Your task to perform on an android device: set the timer Image 0: 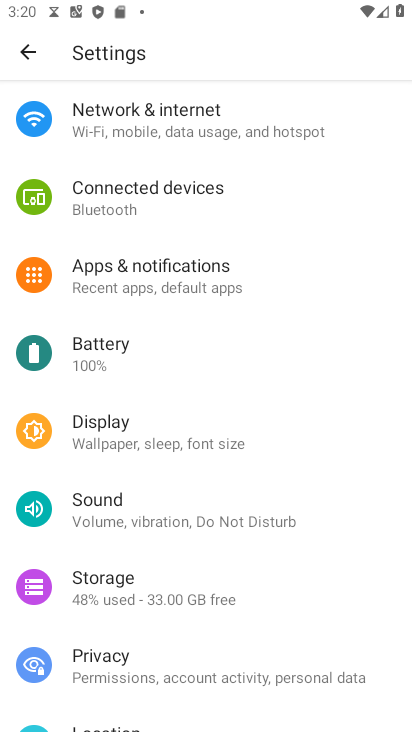
Step 0: drag from (160, 577) to (259, 269)
Your task to perform on an android device: set the timer Image 1: 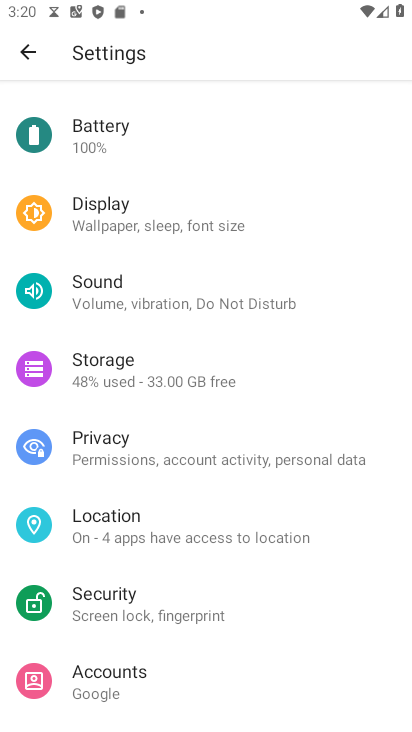
Step 1: press home button
Your task to perform on an android device: set the timer Image 2: 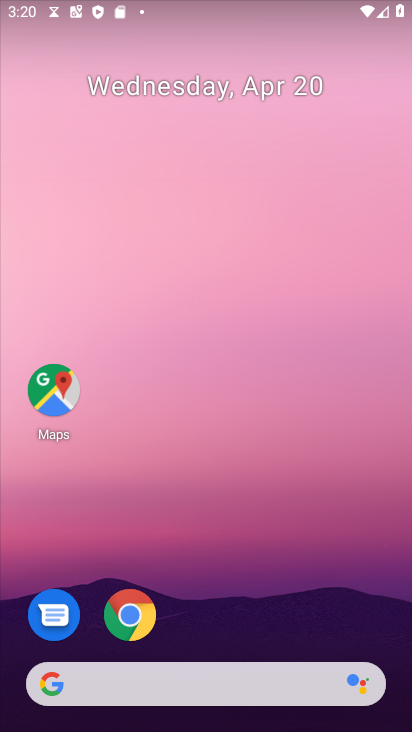
Step 2: drag from (185, 638) to (272, 155)
Your task to perform on an android device: set the timer Image 3: 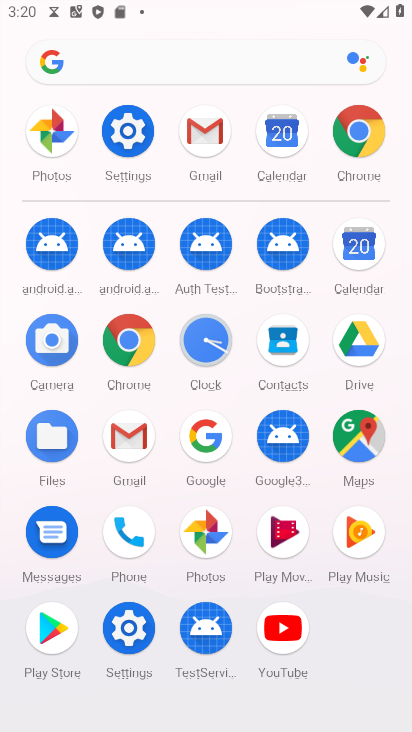
Step 3: click (198, 341)
Your task to perform on an android device: set the timer Image 4: 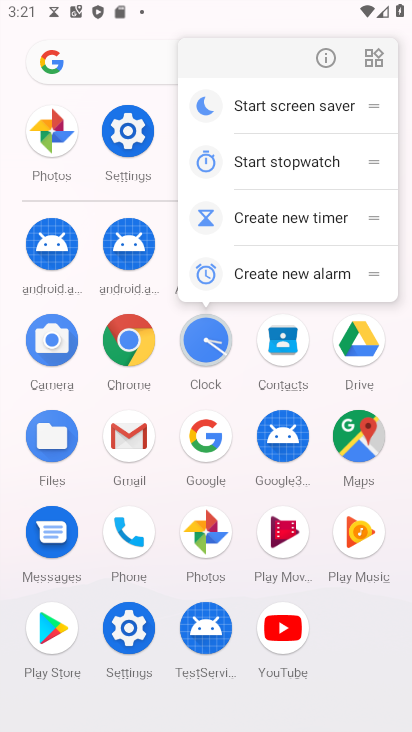
Step 4: click (324, 54)
Your task to perform on an android device: set the timer Image 5: 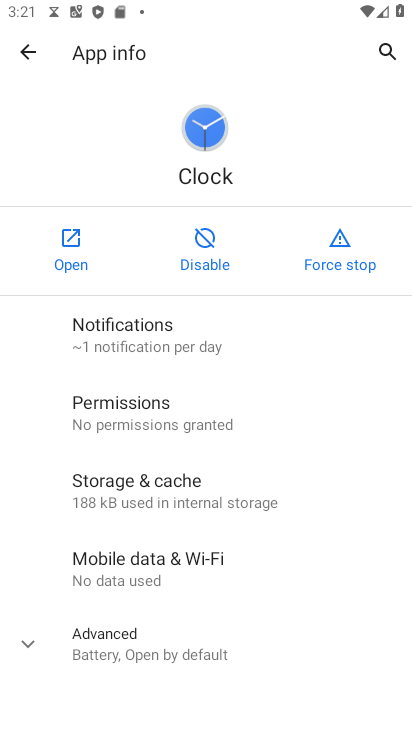
Step 5: click (74, 230)
Your task to perform on an android device: set the timer Image 6: 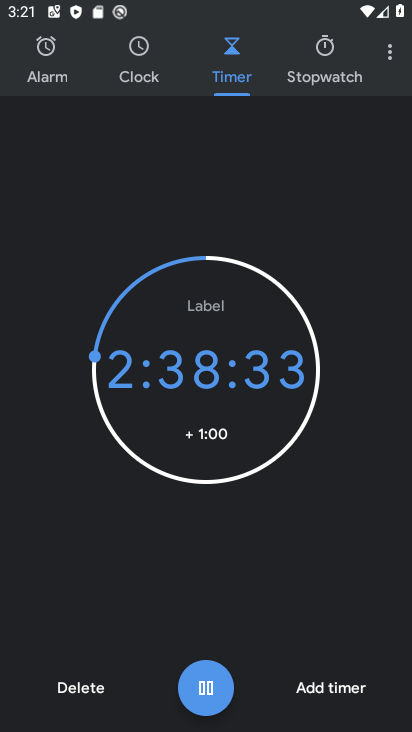
Step 6: click (81, 686)
Your task to perform on an android device: set the timer Image 7: 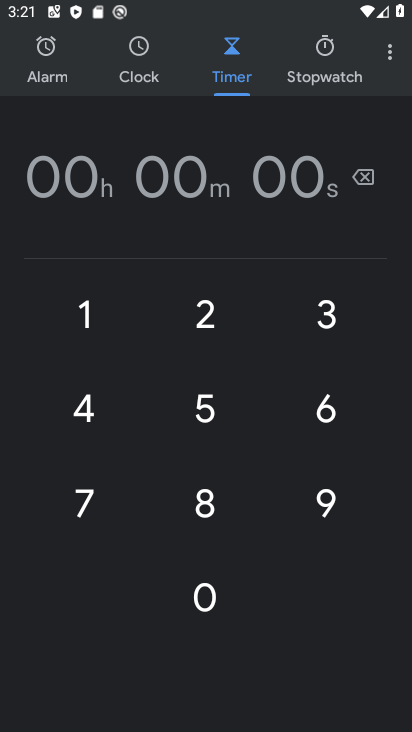
Step 7: click (187, 313)
Your task to perform on an android device: set the timer Image 8: 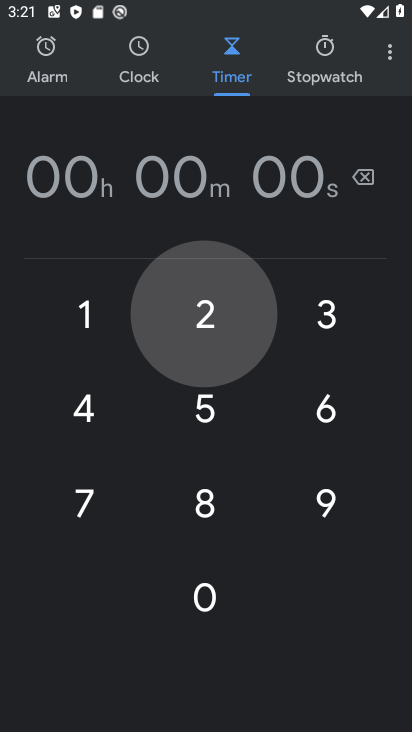
Step 8: click (333, 318)
Your task to perform on an android device: set the timer Image 9: 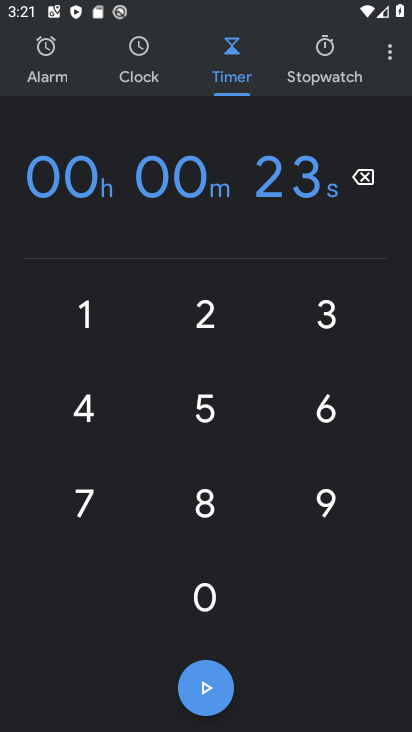
Step 9: click (201, 674)
Your task to perform on an android device: set the timer Image 10: 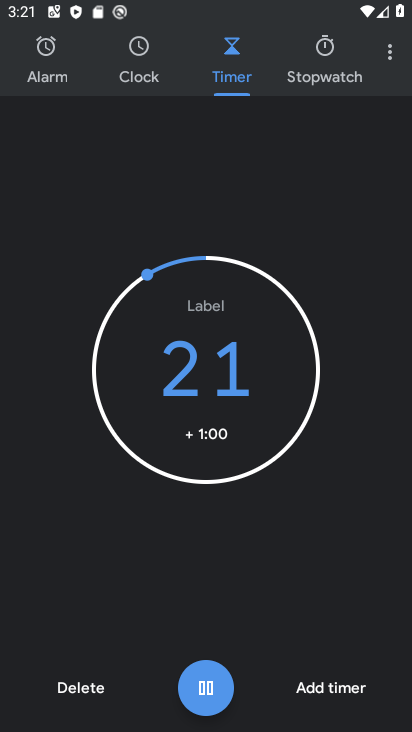
Step 10: task complete